Your task to perform on an android device: Show me popular games on the Play Store Image 0: 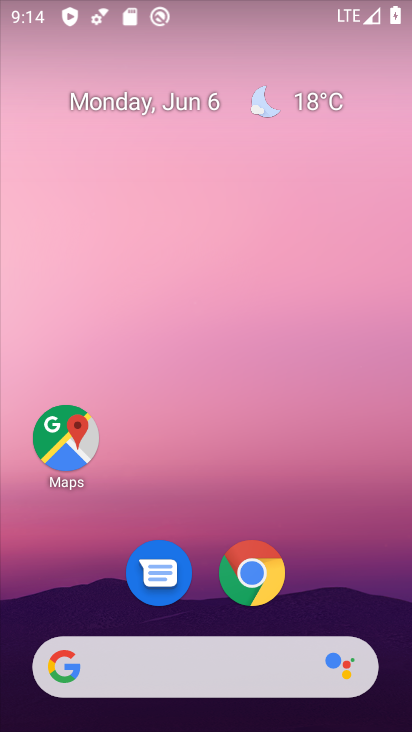
Step 0: drag from (195, 608) to (278, 53)
Your task to perform on an android device: Show me popular games on the Play Store Image 1: 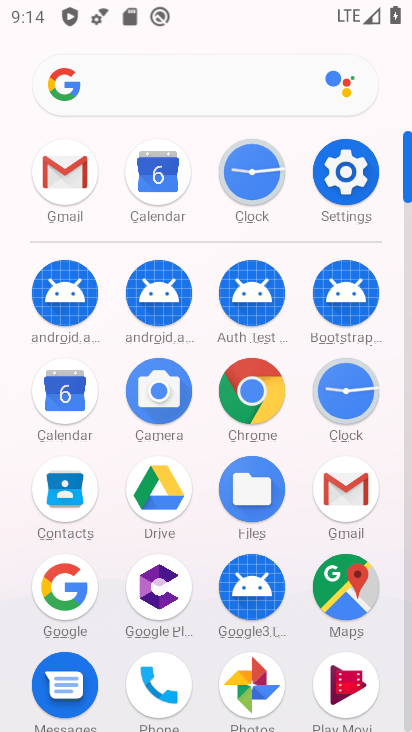
Step 1: drag from (194, 666) to (261, 122)
Your task to perform on an android device: Show me popular games on the Play Store Image 2: 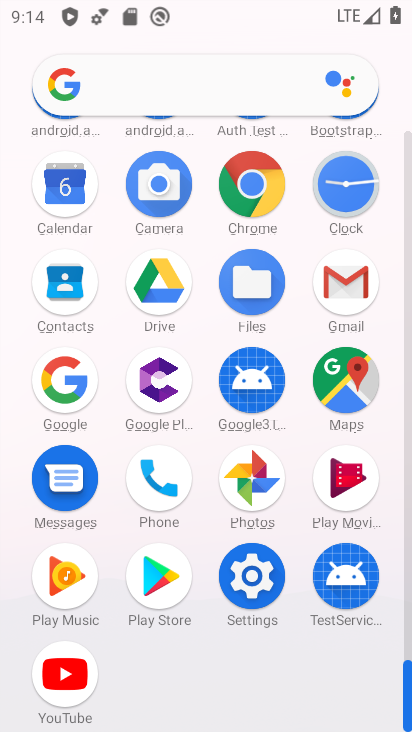
Step 2: click (145, 590)
Your task to perform on an android device: Show me popular games on the Play Store Image 3: 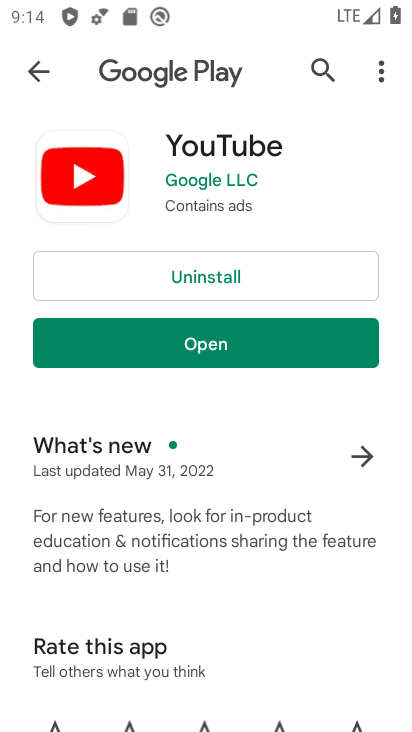
Step 3: click (42, 67)
Your task to perform on an android device: Show me popular games on the Play Store Image 4: 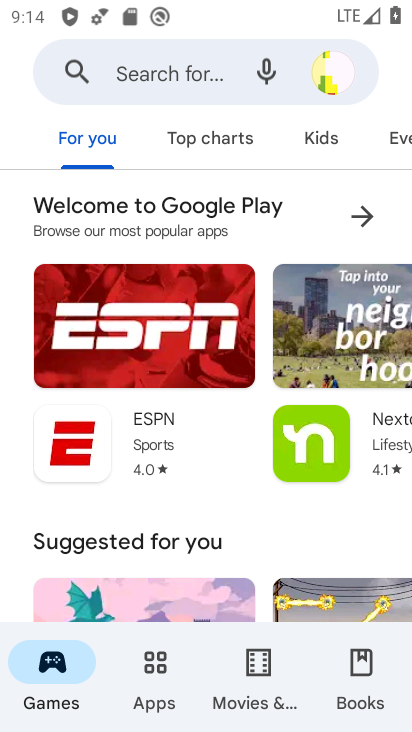
Step 4: drag from (170, 550) to (303, 67)
Your task to perform on an android device: Show me popular games on the Play Store Image 5: 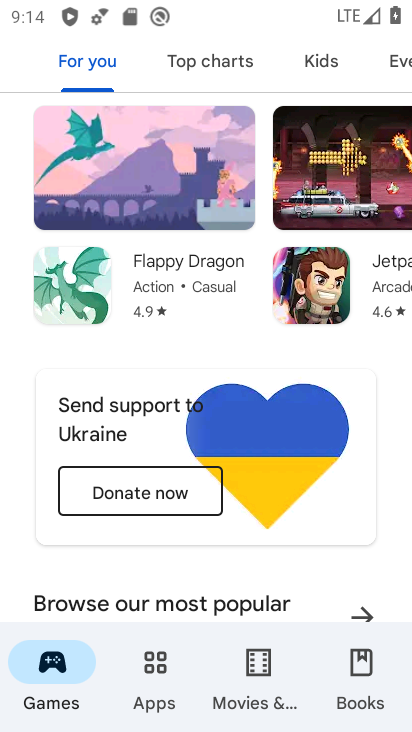
Step 5: drag from (175, 579) to (257, 193)
Your task to perform on an android device: Show me popular games on the Play Store Image 6: 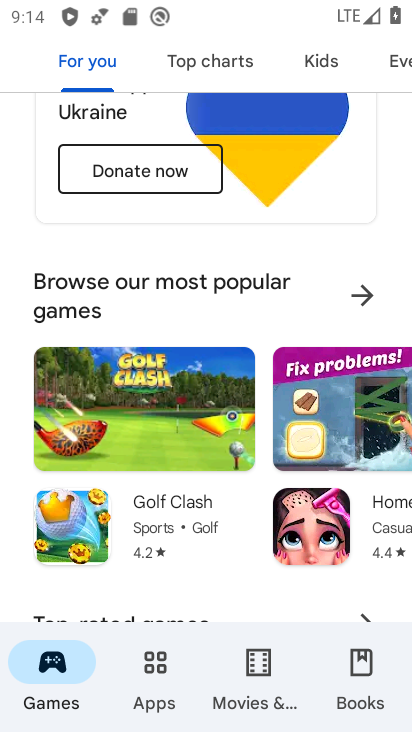
Step 6: click (365, 300)
Your task to perform on an android device: Show me popular games on the Play Store Image 7: 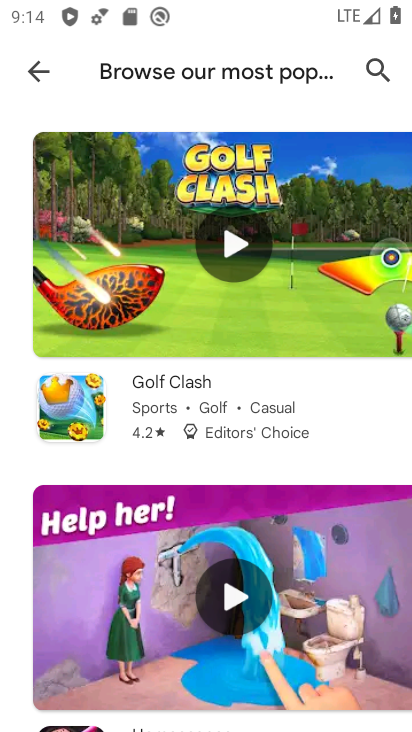
Step 7: task complete